Your task to perform on an android device: Open location settings Image 0: 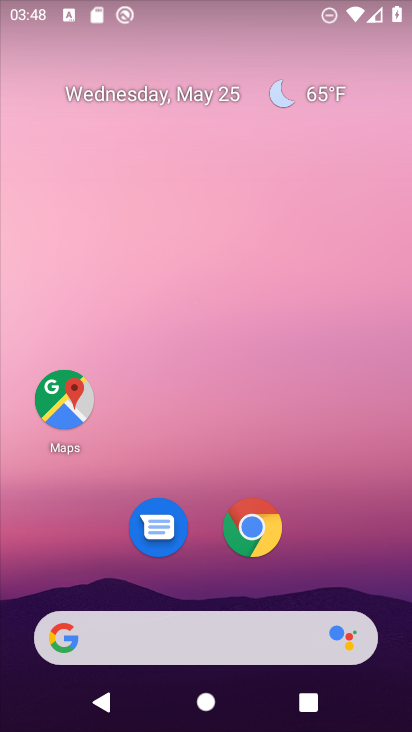
Step 0: drag from (168, 623) to (257, 109)
Your task to perform on an android device: Open location settings Image 1: 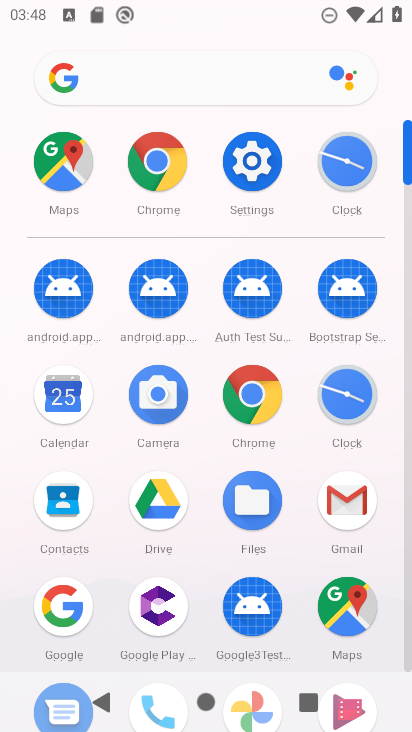
Step 1: click (257, 153)
Your task to perform on an android device: Open location settings Image 2: 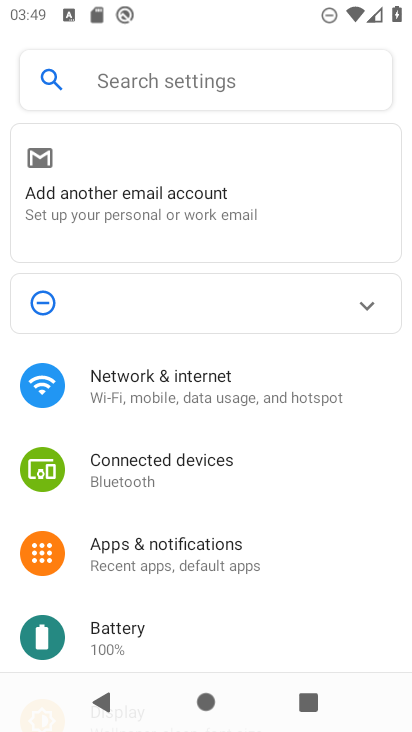
Step 2: drag from (216, 609) to (272, 81)
Your task to perform on an android device: Open location settings Image 3: 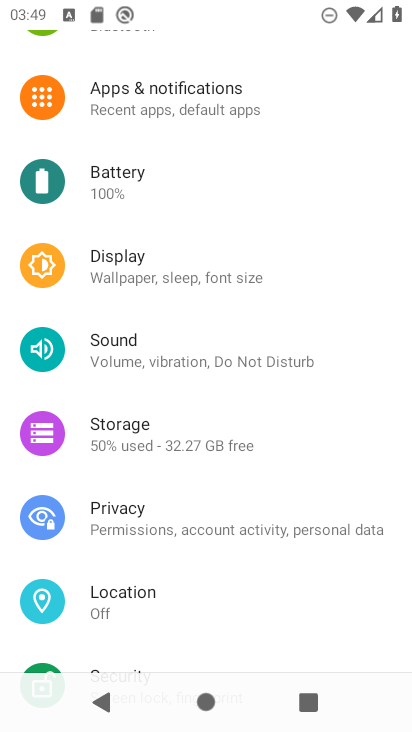
Step 3: click (154, 597)
Your task to perform on an android device: Open location settings Image 4: 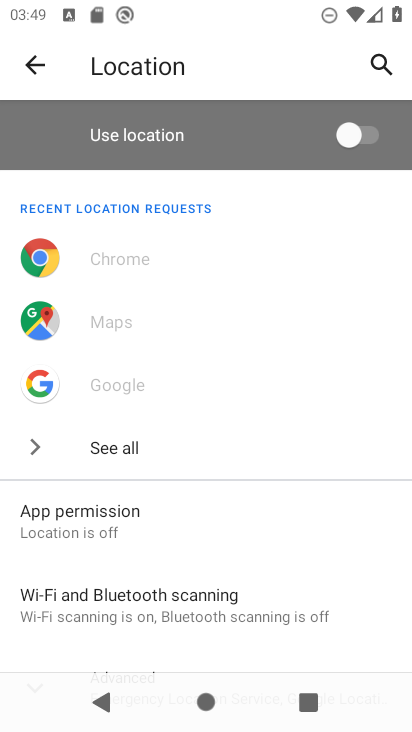
Step 4: task complete